Your task to perform on an android device: Open network settings Image 0: 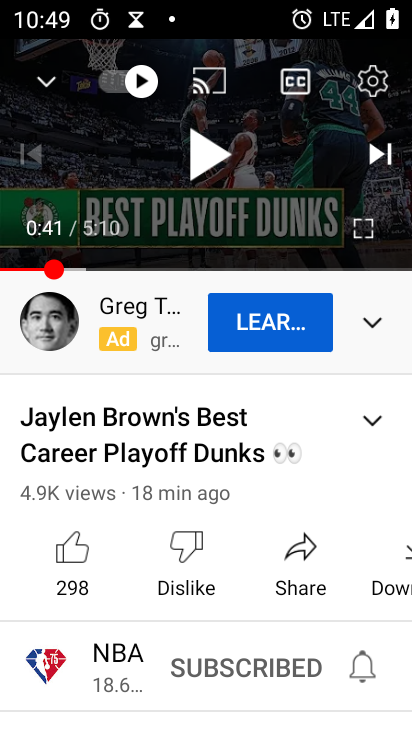
Step 0: press home button
Your task to perform on an android device: Open network settings Image 1: 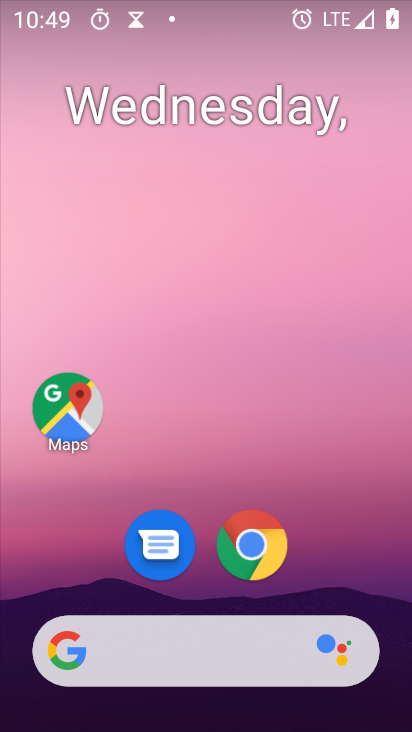
Step 1: drag from (182, 668) to (330, 126)
Your task to perform on an android device: Open network settings Image 2: 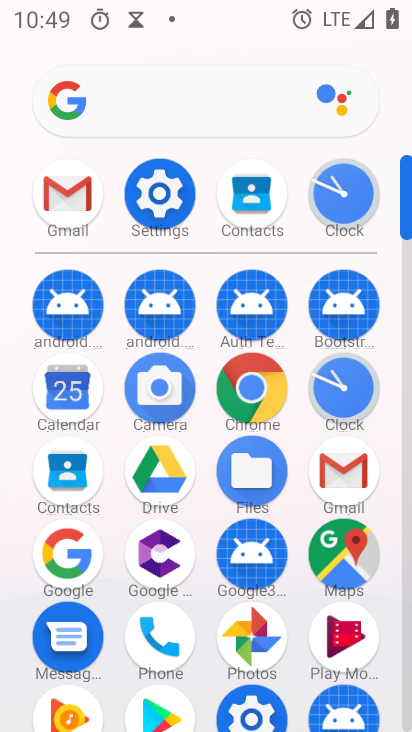
Step 2: click (162, 193)
Your task to perform on an android device: Open network settings Image 3: 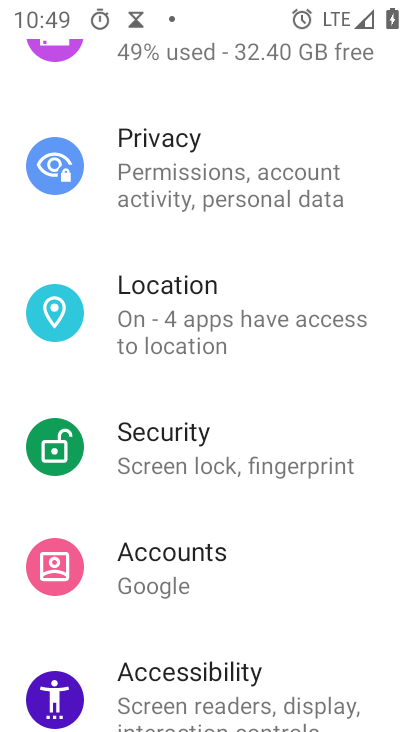
Step 3: drag from (273, 101) to (250, 586)
Your task to perform on an android device: Open network settings Image 4: 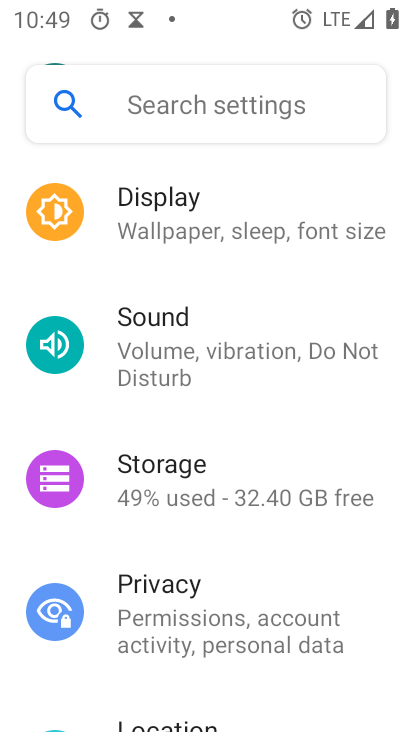
Step 4: drag from (251, 184) to (263, 563)
Your task to perform on an android device: Open network settings Image 5: 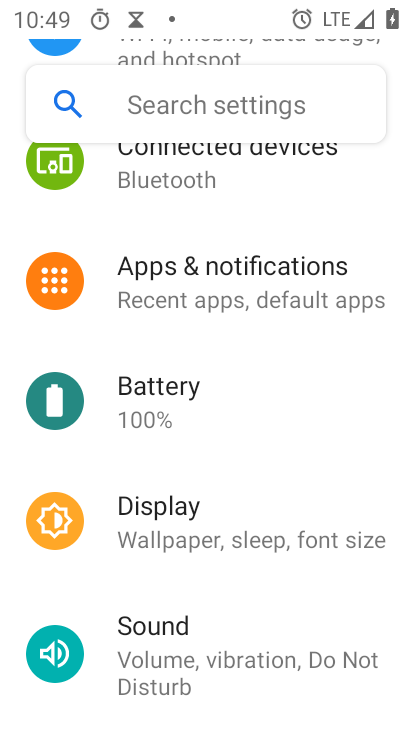
Step 5: drag from (246, 223) to (225, 597)
Your task to perform on an android device: Open network settings Image 6: 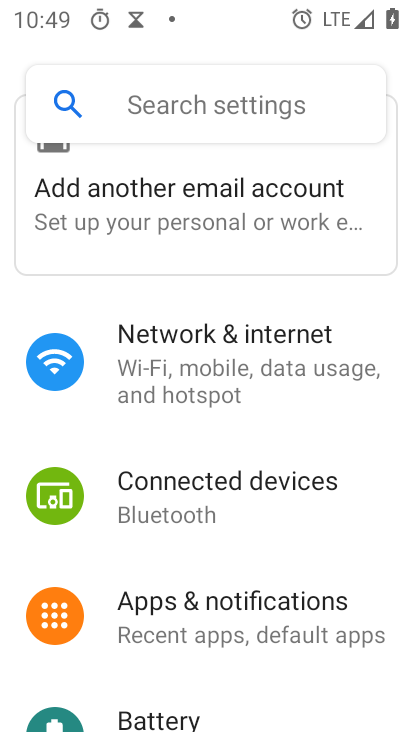
Step 6: click (219, 358)
Your task to perform on an android device: Open network settings Image 7: 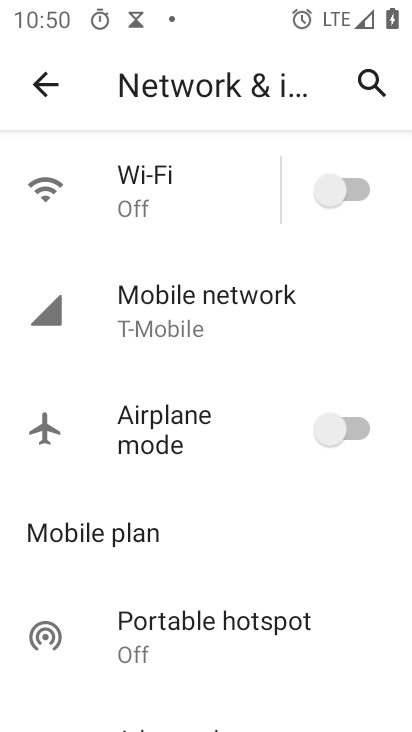
Step 7: task complete